Your task to perform on an android device: show emergency info Image 0: 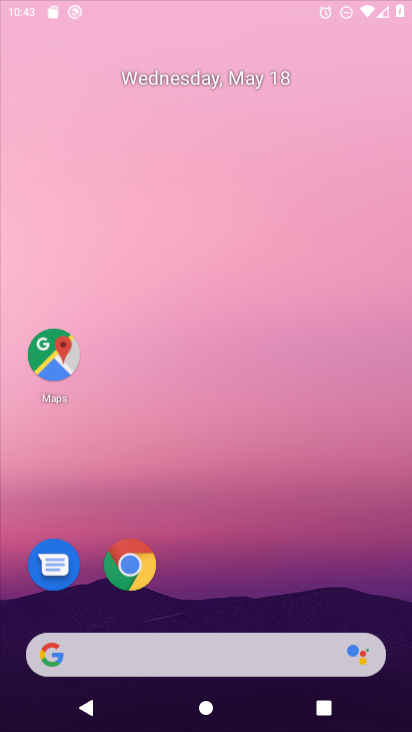
Step 0: press home button
Your task to perform on an android device: show emergency info Image 1: 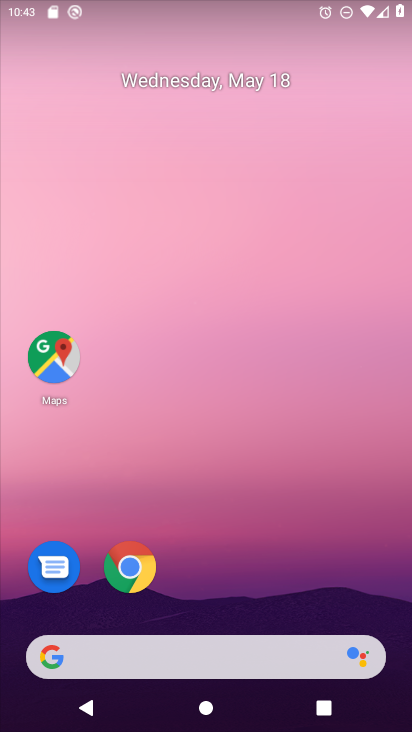
Step 1: drag from (219, 689) to (400, 197)
Your task to perform on an android device: show emergency info Image 2: 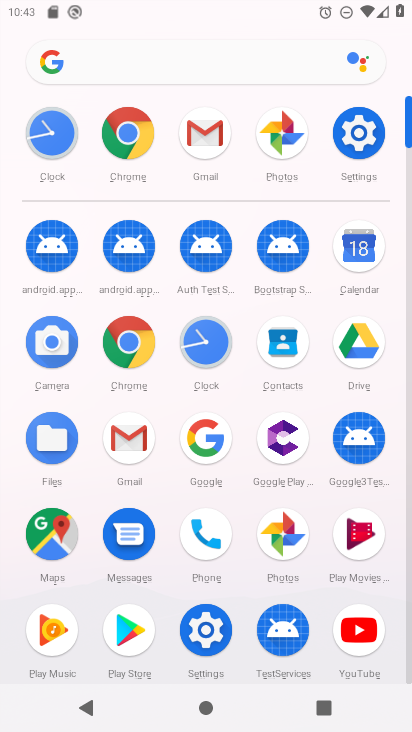
Step 2: click (209, 644)
Your task to perform on an android device: show emergency info Image 3: 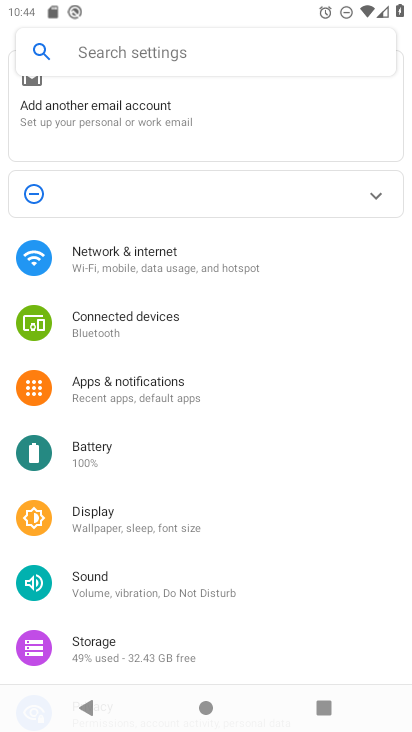
Step 3: click (110, 49)
Your task to perform on an android device: show emergency info Image 4: 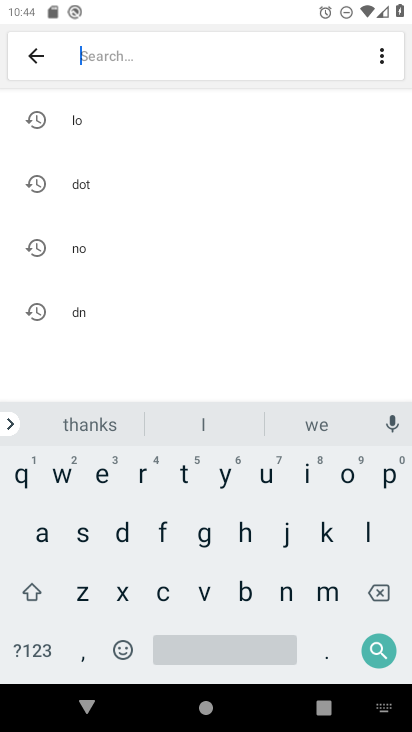
Step 4: click (94, 495)
Your task to perform on an android device: show emergency info Image 5: 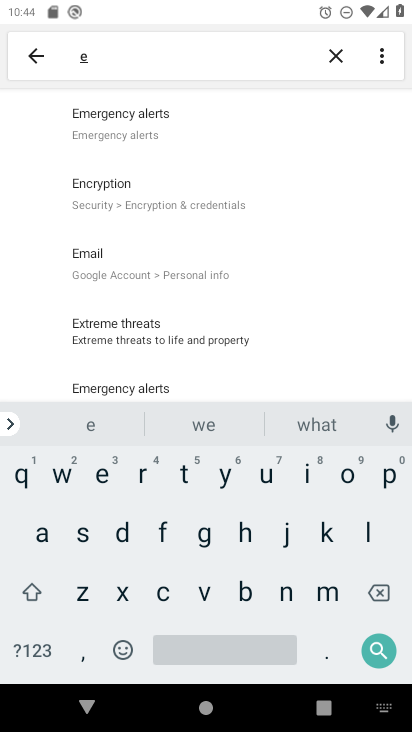
Step 5: click (327, 600)
Your task to perform on an android device: show emergency info Image 6: 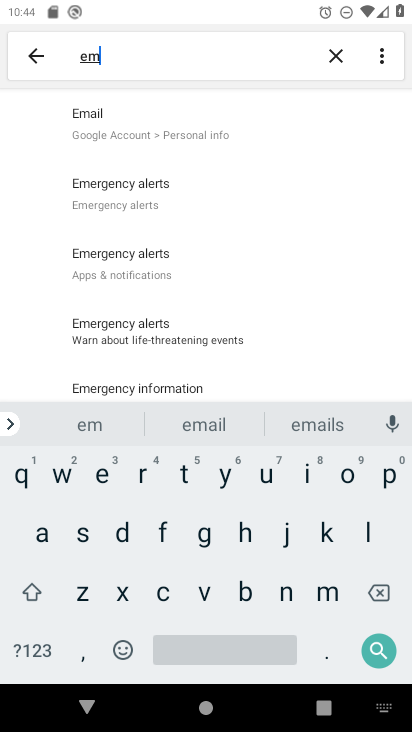
Step 6: click (99, 468)
Your task to perform on an android device: show emergency info Image 7: 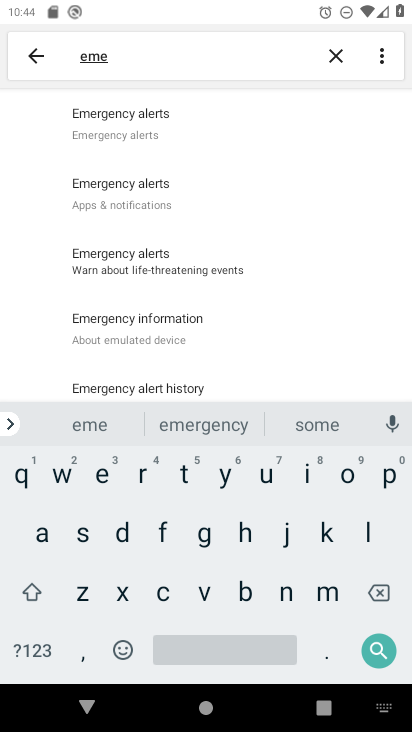
Step 7: click (198, 434)
Your task to perform on an android device: show emergency info Image 8: 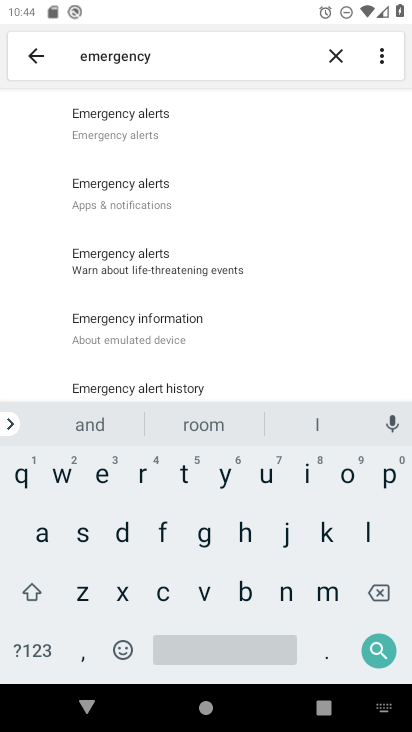
Step 8: click (300, 472)
Your task to perform on an android device: show emergency info Image 9: 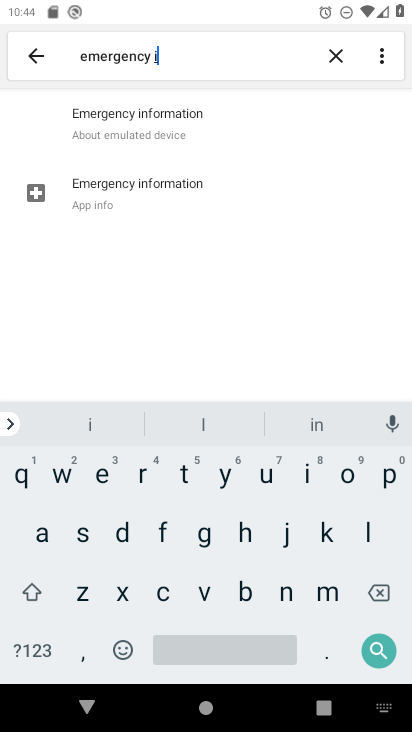
Step 9: click (187, 134)
Your task to perform on an android device: show emergency info Image 10: 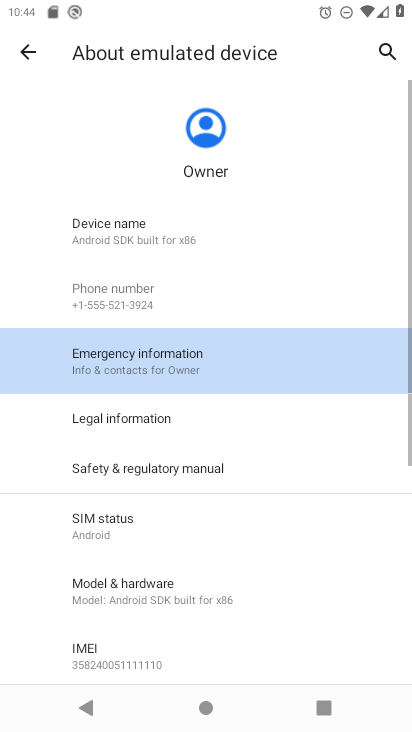
Step 10: click (173, 359)
Your task to perform on an android device: show emergency info Image 11: 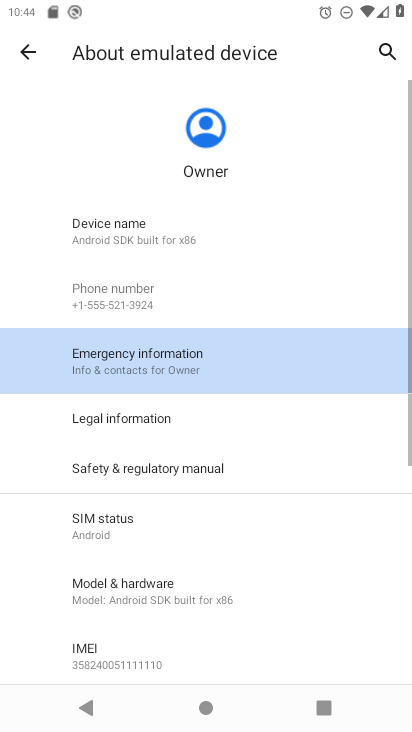
Step 11: task complete